Your task to perform on an android device: open app "Pandora - Music & Podcasts" Image 0: 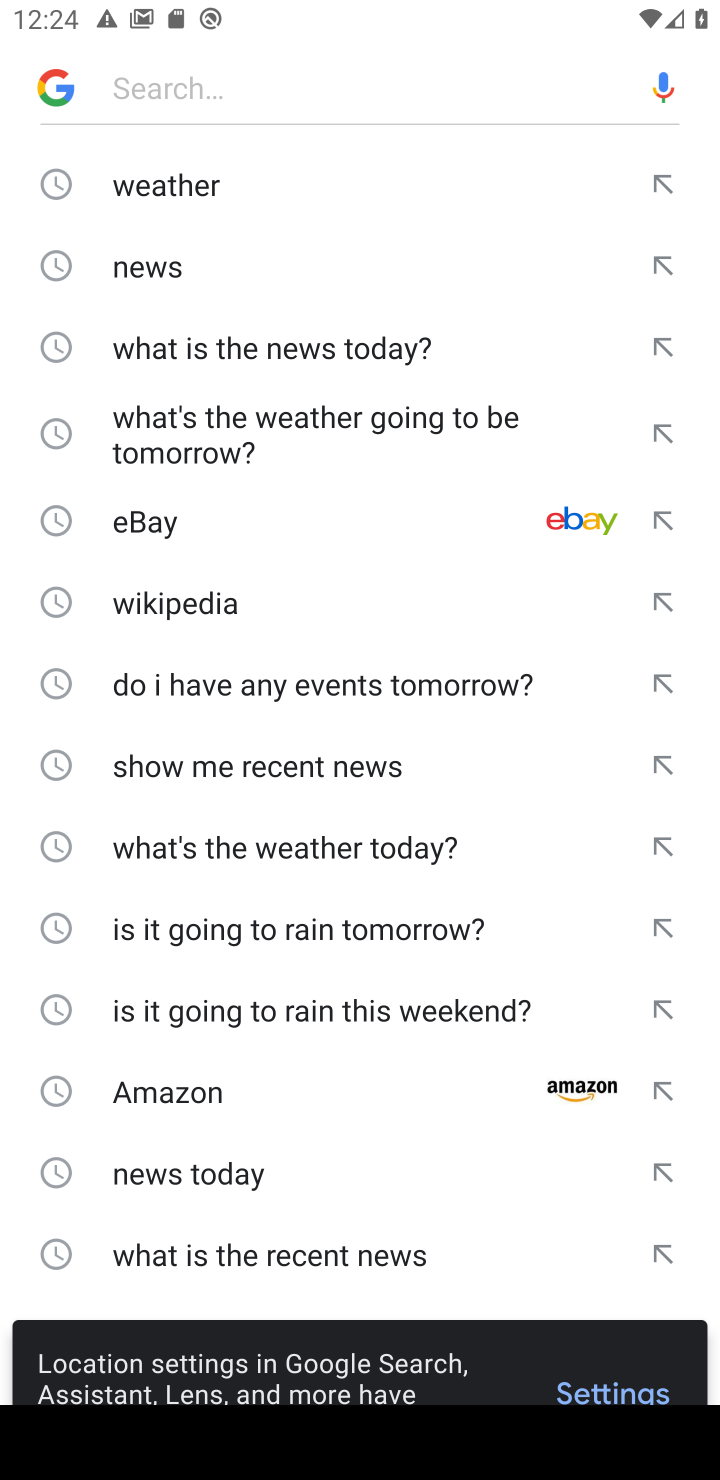
Step 0: press home button
Your task to perform on an android device: open app "Pandora - Music & Podcasts" Image 1: 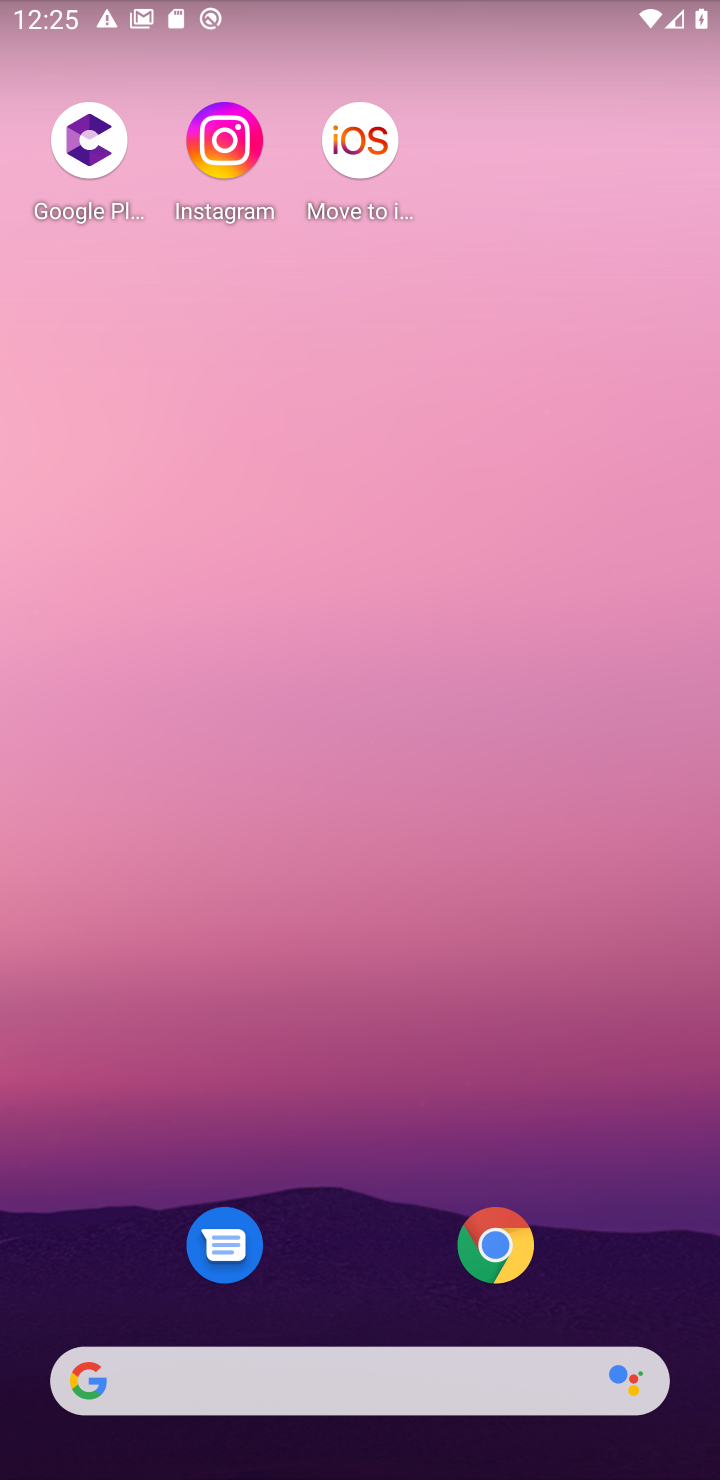
Step 1: drag from (323, 1359) to (346, 365)
Your task to perform on an android device: open app "Pandora - Music & Podcasts" Image 2: 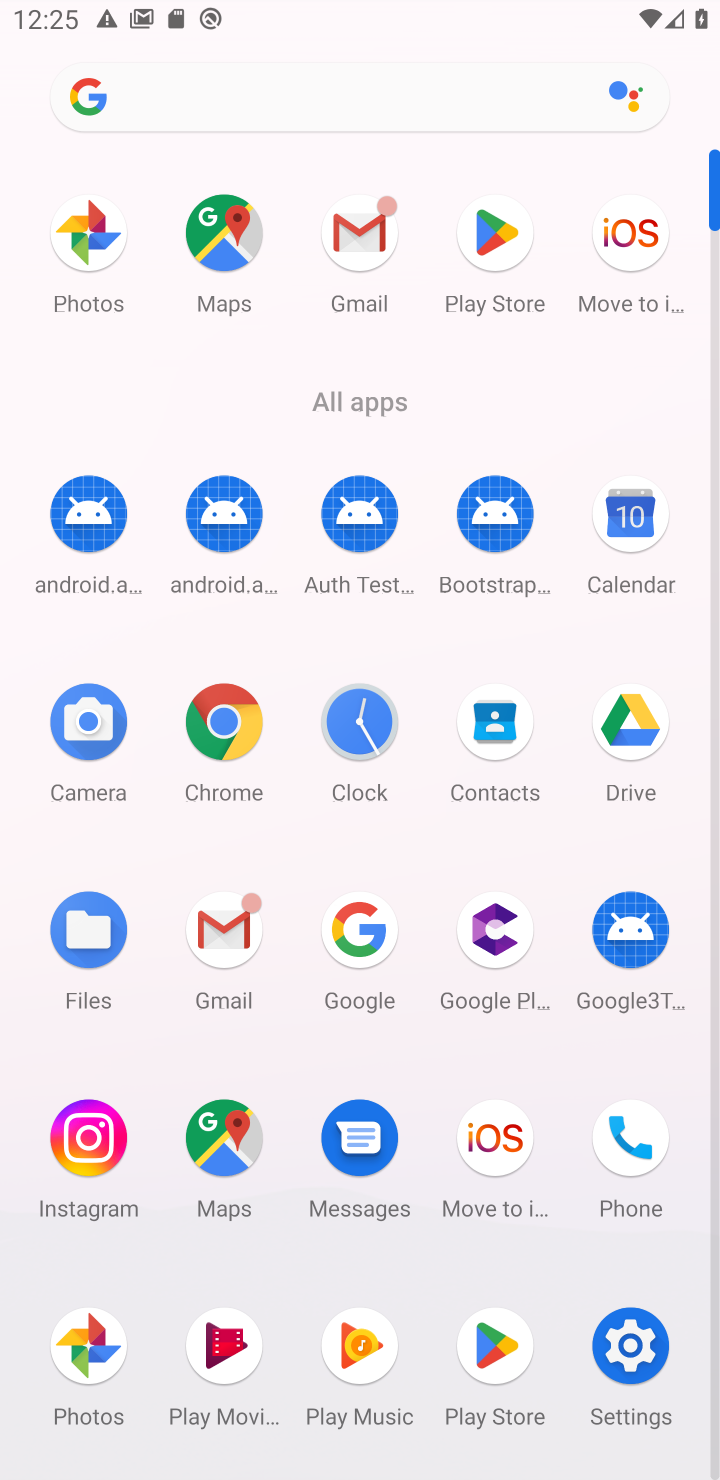
Step 2: click (489, 239)
Your task to perform on an android device: open app "Pandora - Music & Podcasts" Image 3: 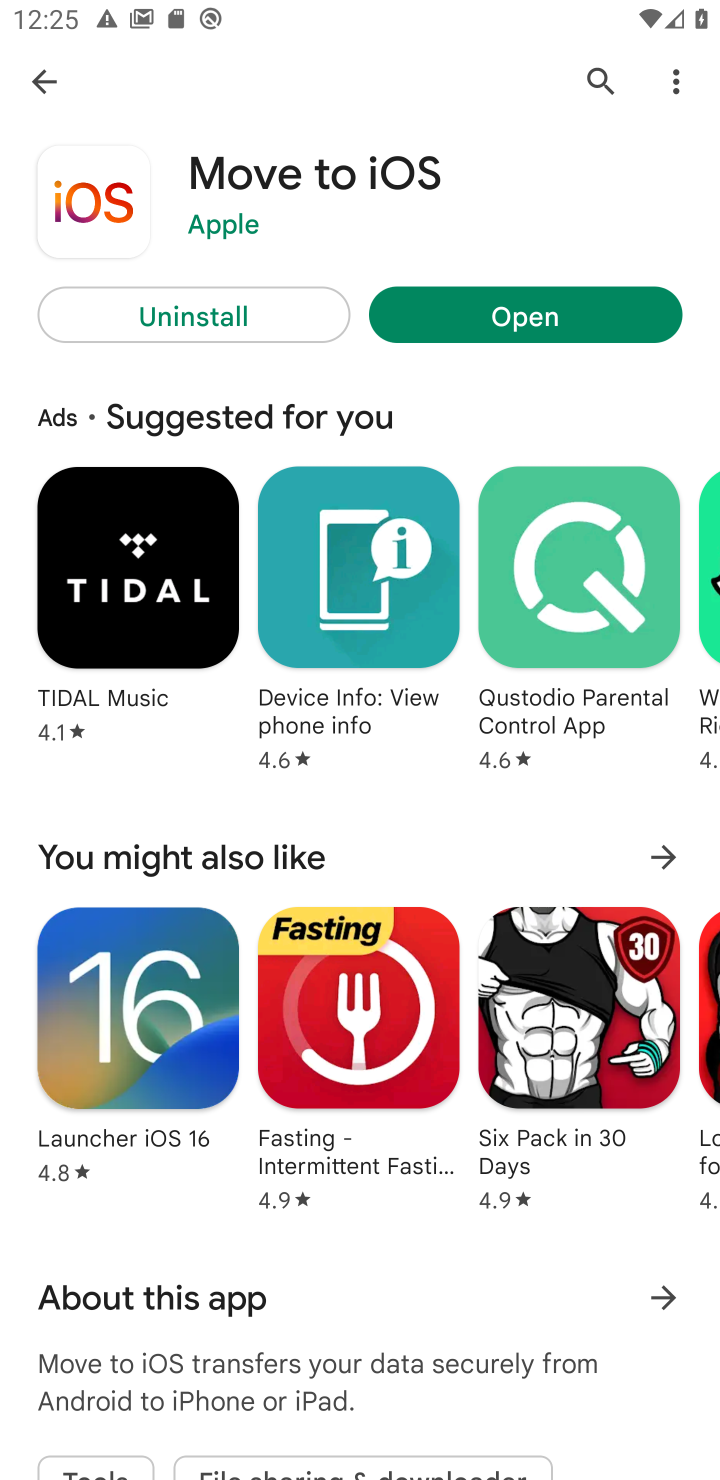
Step 3: click (591, 88)
Your task to perform on an android device: open app "Pandora - Music & Podcasts" Image 4: 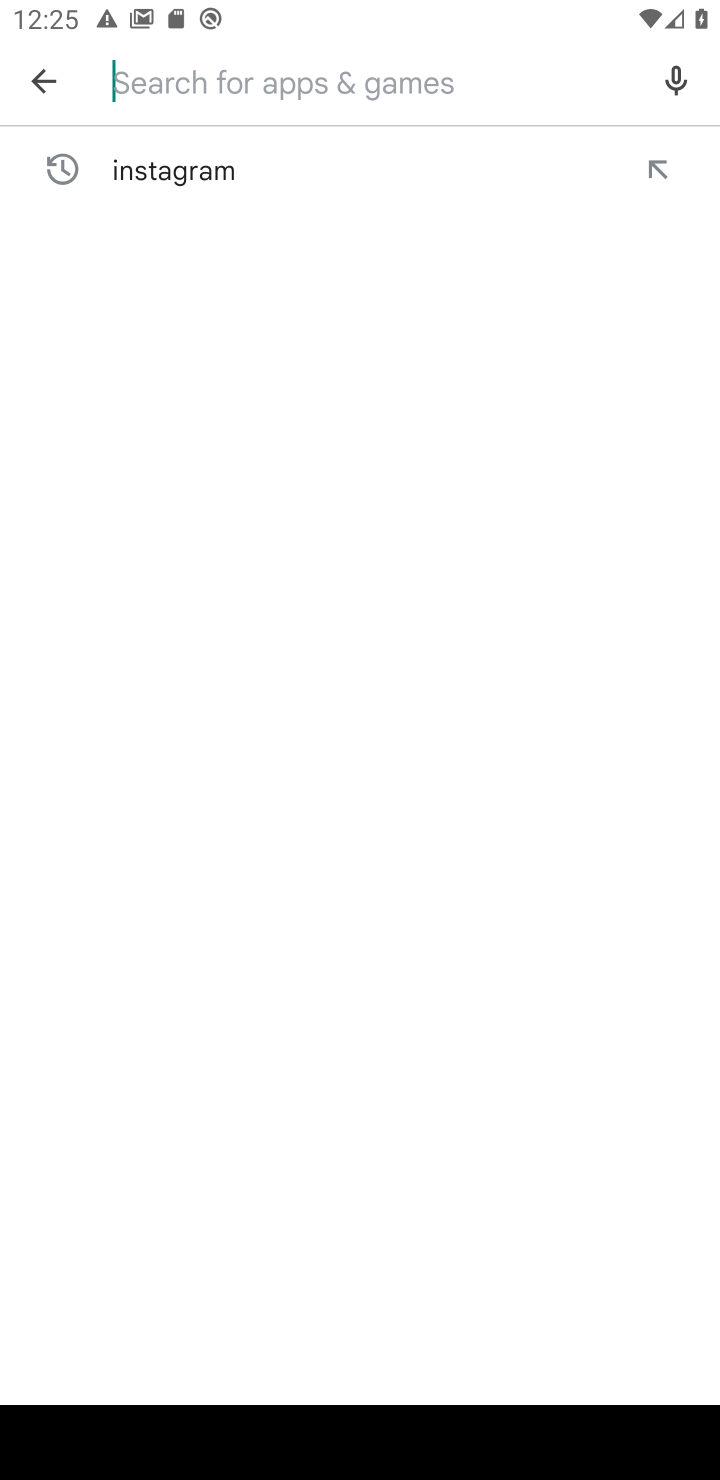
Step 4: type "Pandora - Music & Podcasts"
Your task to perform on an android device: open app "Pandora - Music & Podcasts" Image 5: 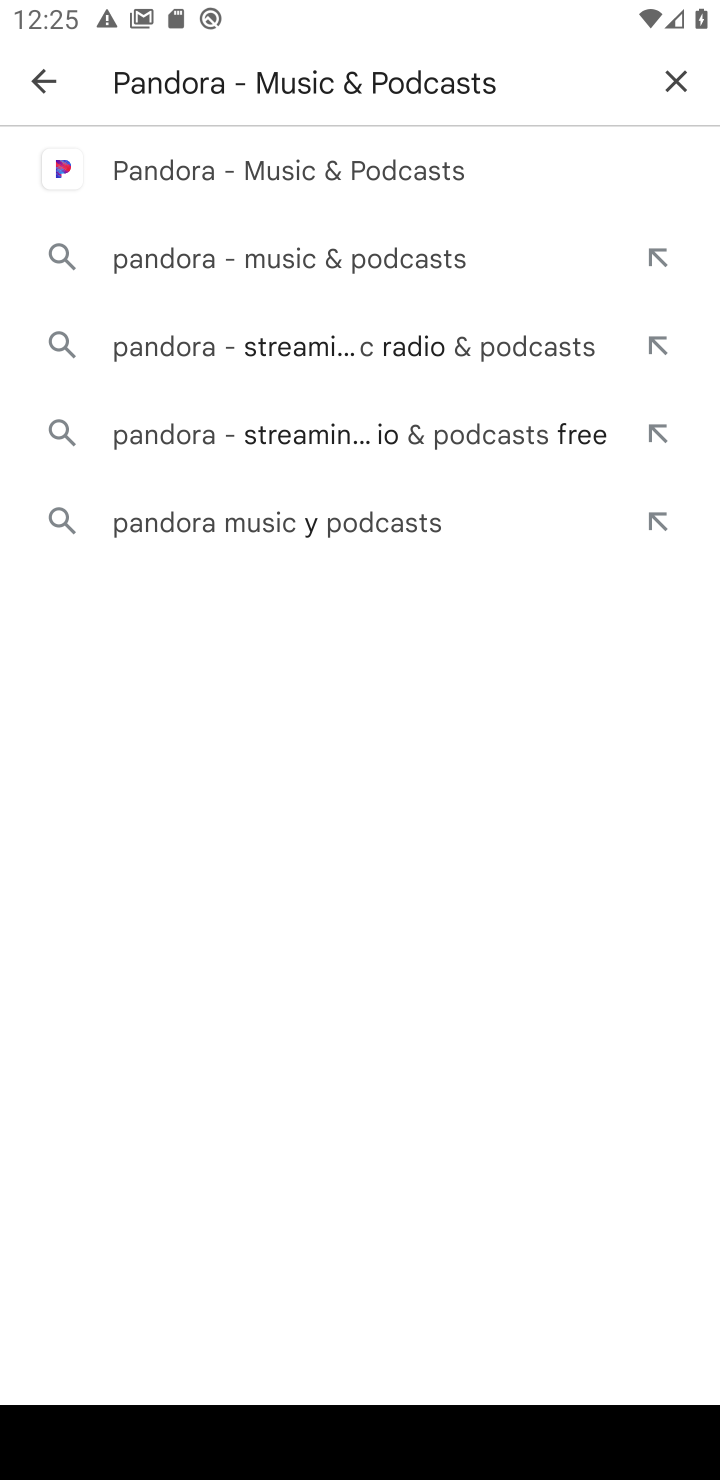
Step 5: click (213, 170)
Your task to perform on an android device: open app "Pandora - Music & Podcasts" Image 6: 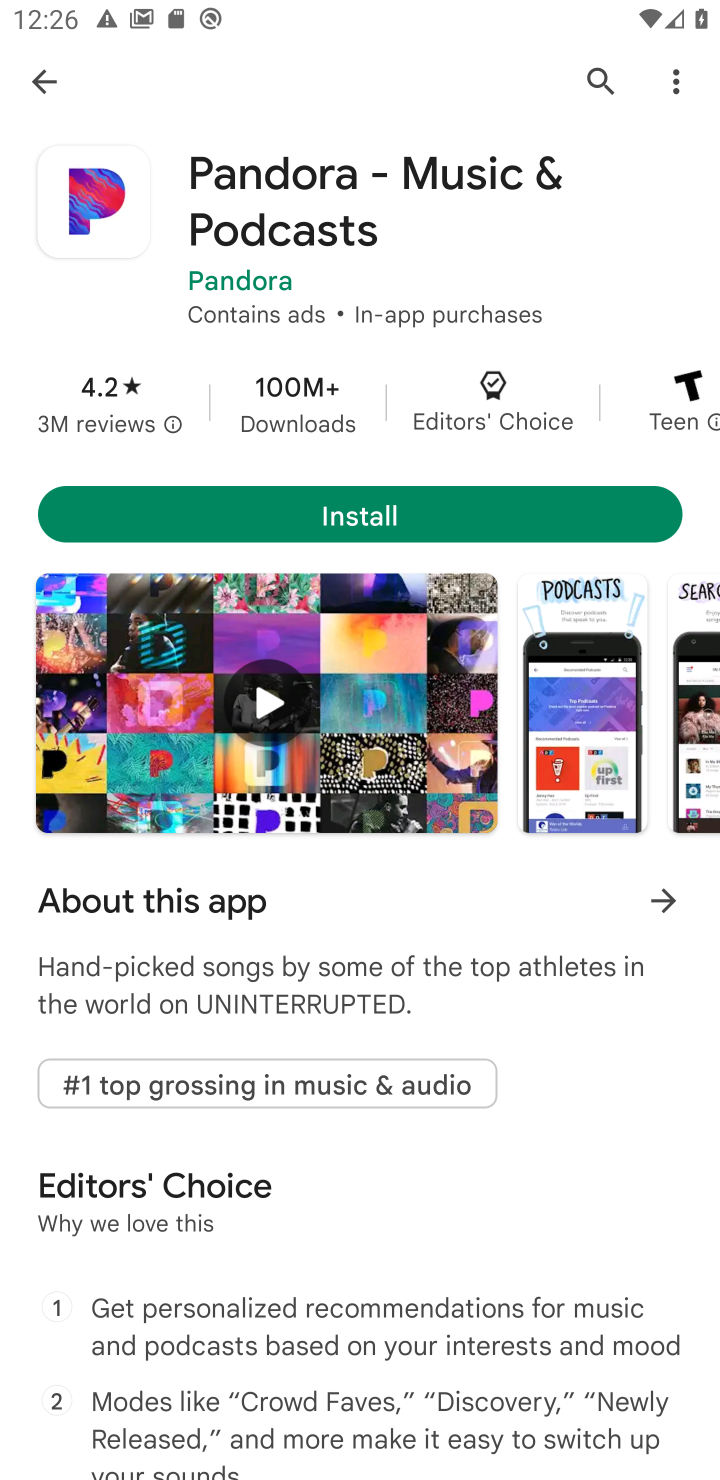
Step 6: click (313, 516)
Your task to perform on an android device: open app "Pandora - Music & Podcasts" Image 7: 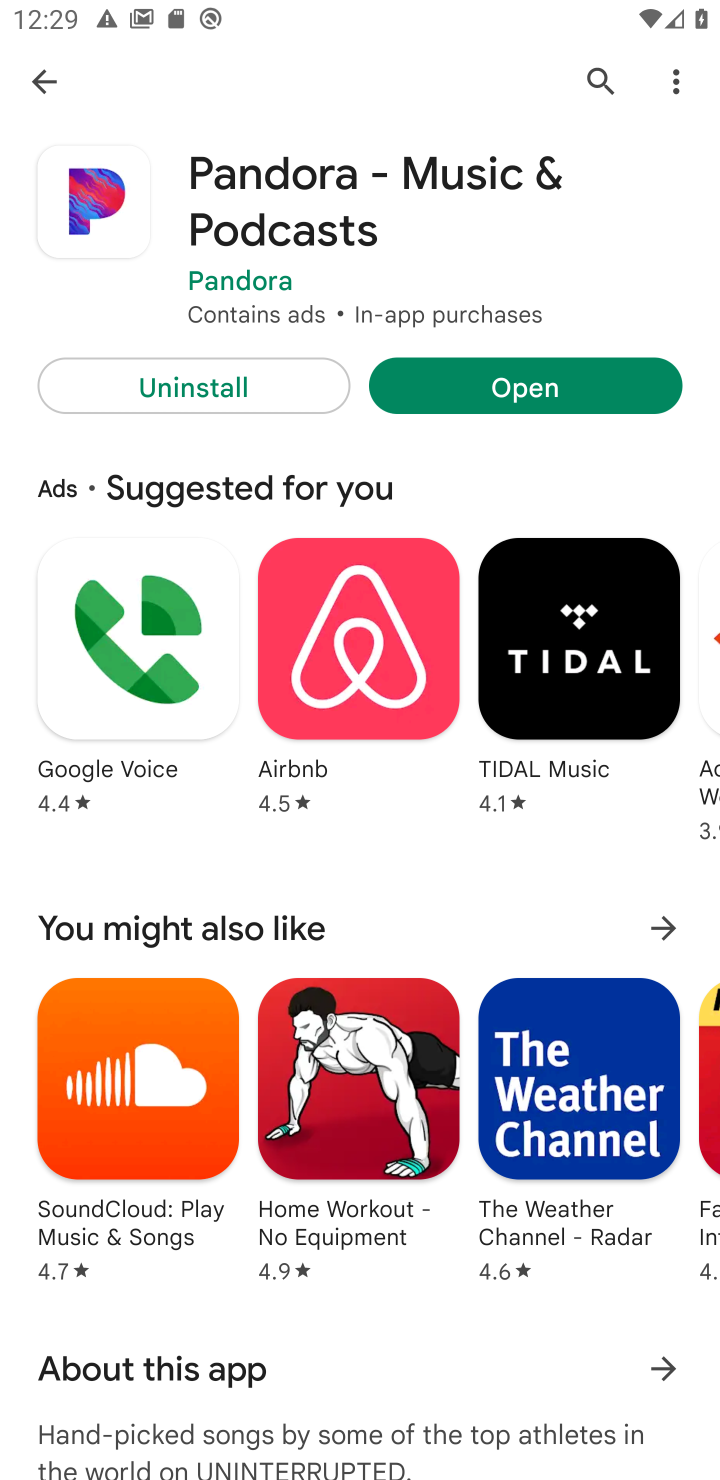
Step 7: click (515, 394)
Your task to perform on an android device: open app "Pandora - Music & Podcasts" Image 8: 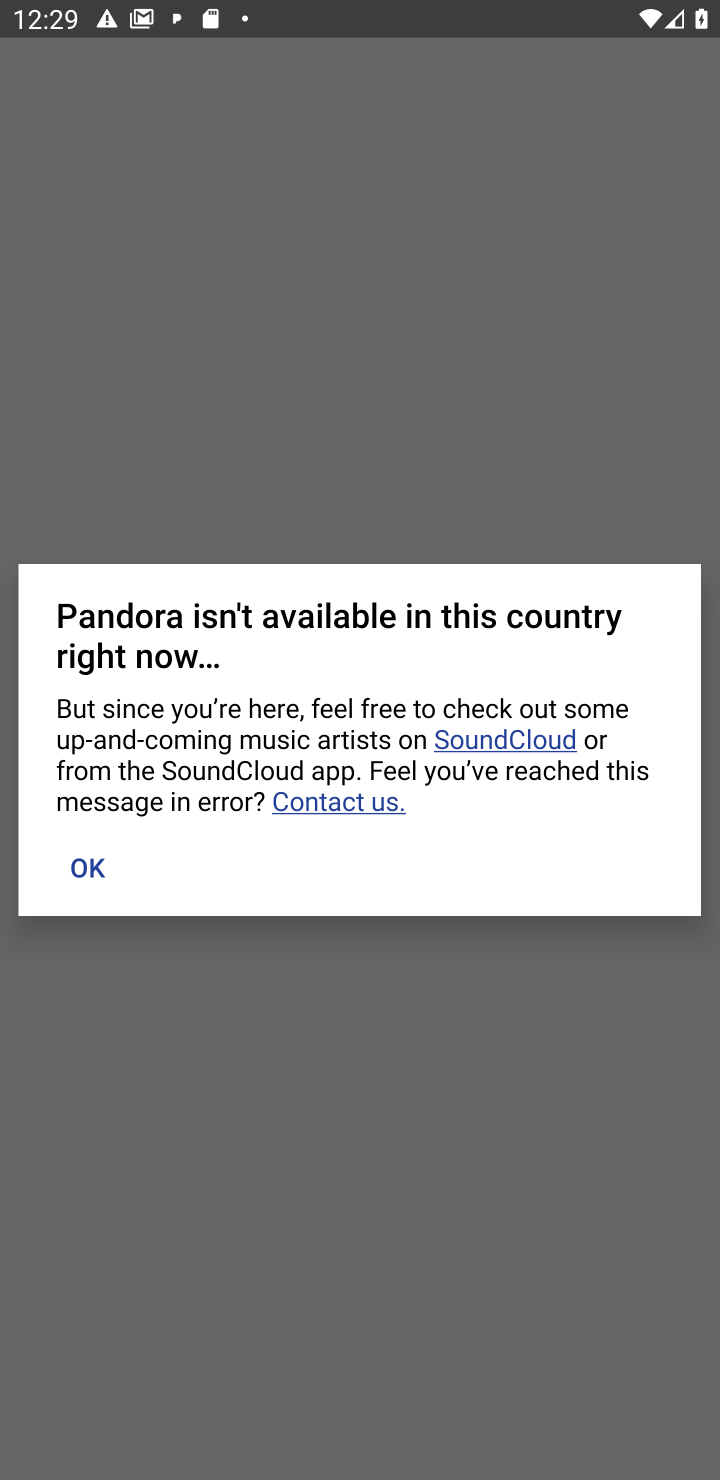
Step 8: task complete